Your task to perform on an android device: check data usage Image 0: 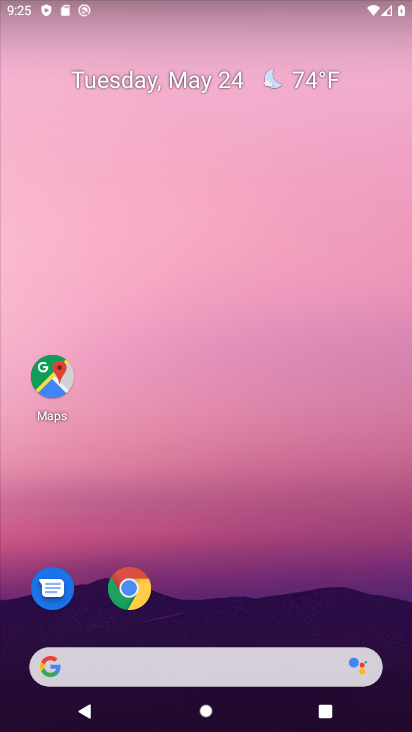
Step 0: drag from (226, 11) to (252, 623)
Your task to perform on an android device: check data usage Image 1: 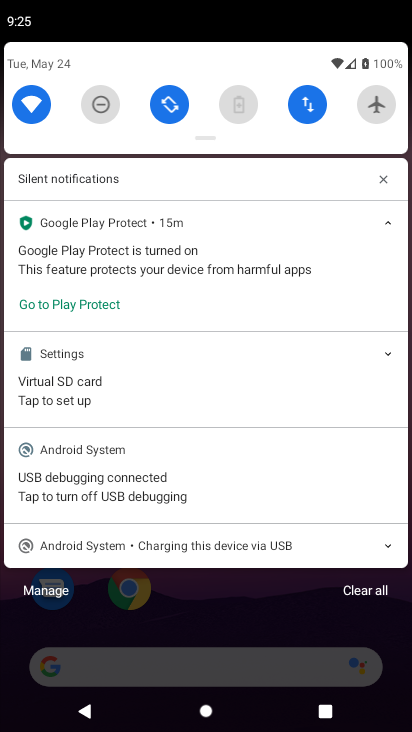
Step 1: click (306, 100)
Your task to perform on an android device: check data usage Image 2: 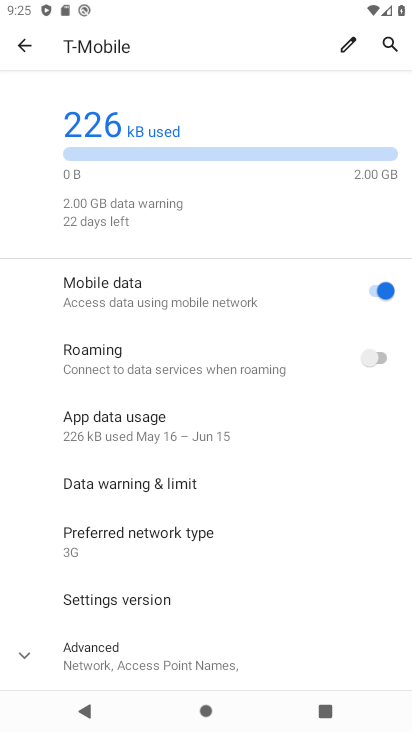
Step 2: task complete